Your task to perform on an android device: Open the phone app and click the voicemail tab. Image 0: 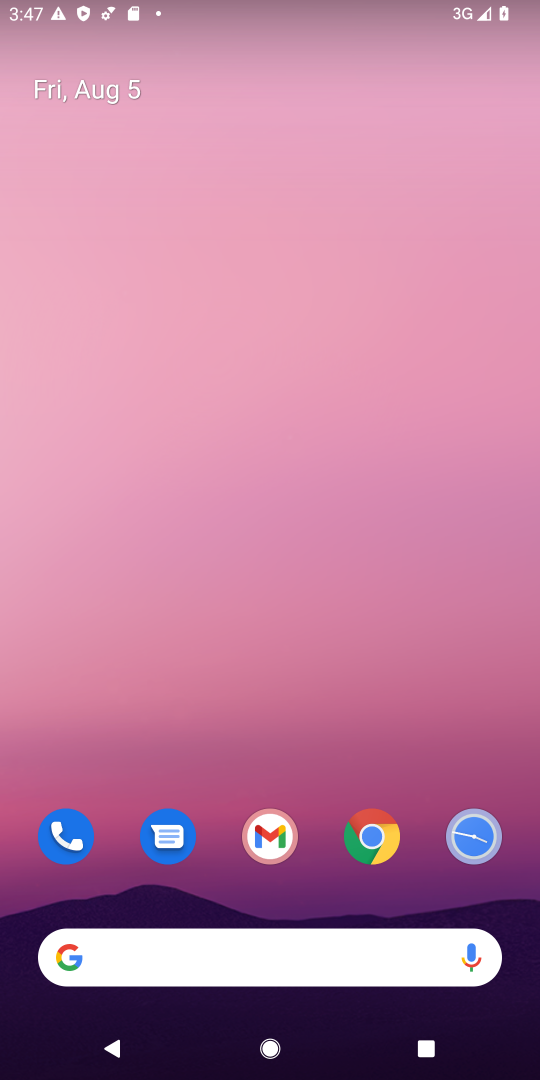
Step 0: drag from (105, 845) to (146, 0)
Your task to perform on an android device: Open the phone app and click the voicemail tab. Image 1: 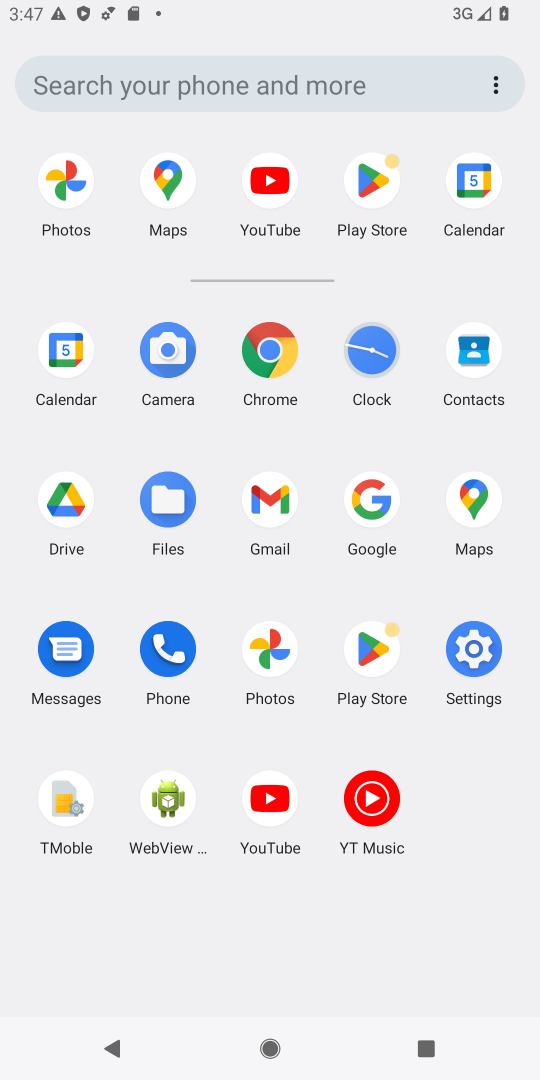
Step 1: click (168, 641)
Your task to perform on an android device: Open the phone app and click the voicemail tab. Image 2: 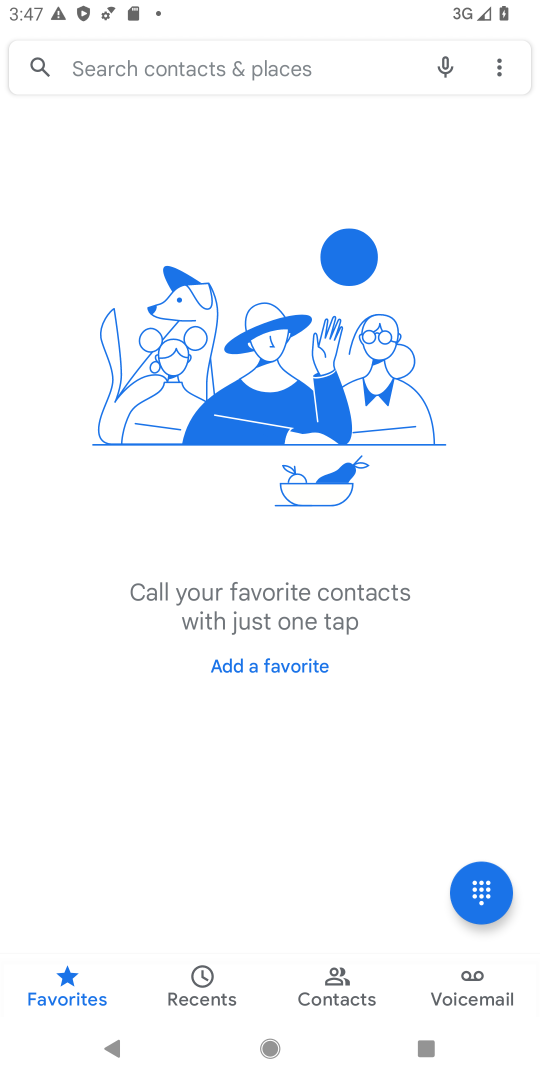
Step 2: click (463, 990)
Your task to perform on an android device: Open the phone app and click the voicemail tab. Image 3: 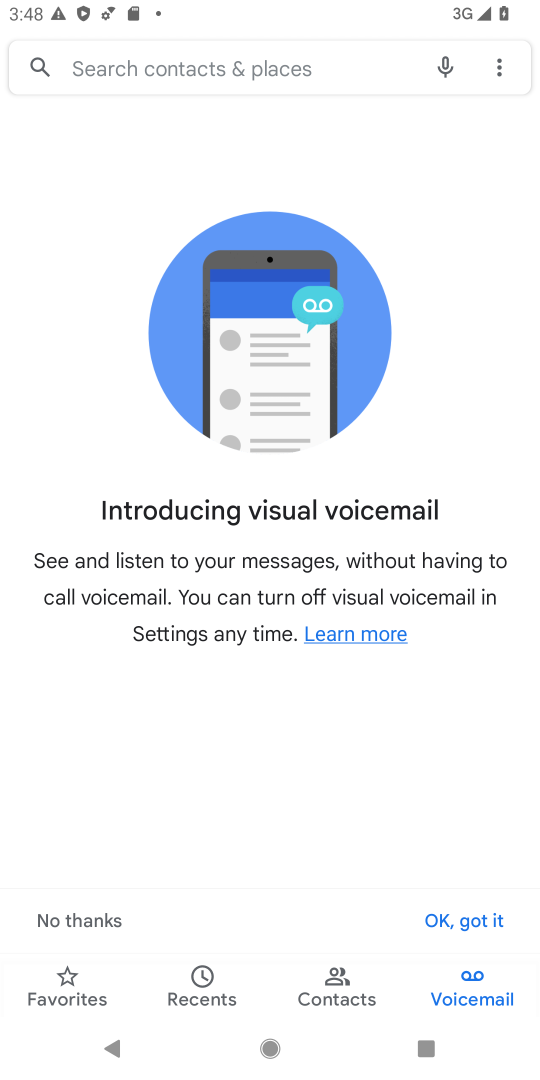
Step 3: task complete